Your task to perform on an android device: What is the news today? Image 0: 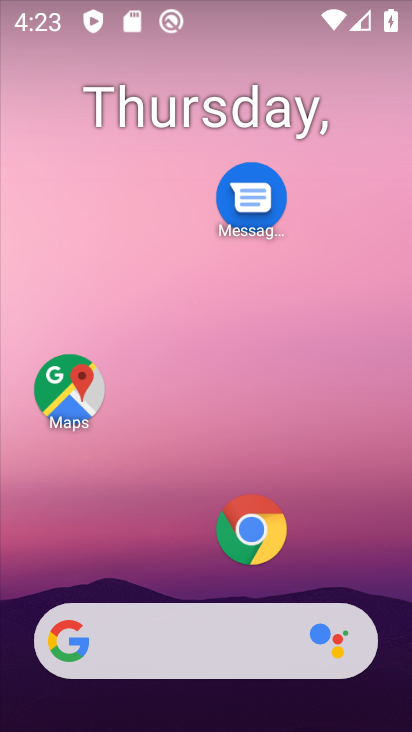
Step 0: click (178, 630)
Your task to perform on an android device: What is the news today? Image 1: 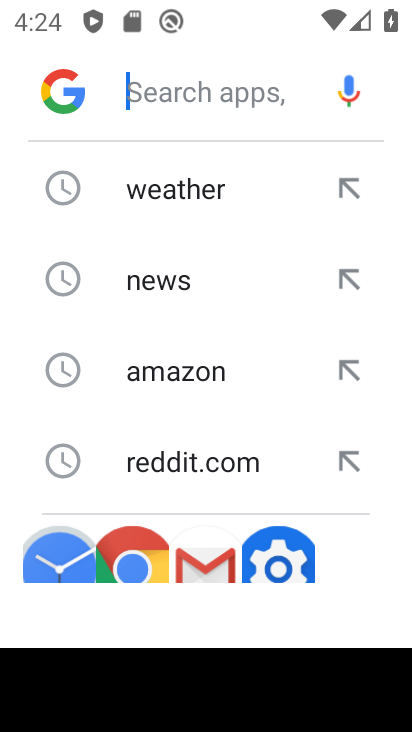
Step 1: click (172, 281)
Your task to perform on an android device: What is the news today? Image 2: 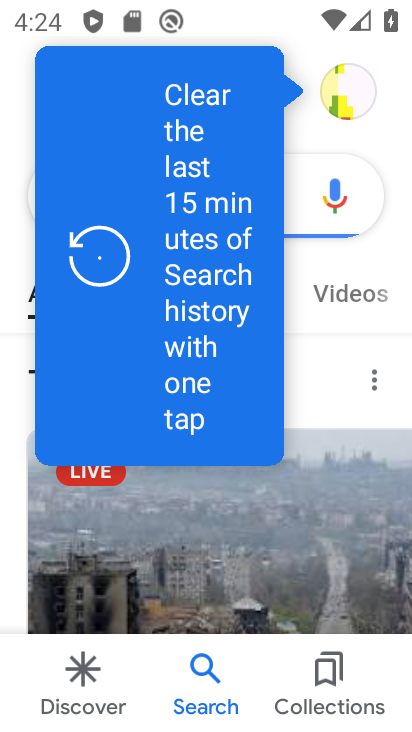
Step 2: task complete